Your task to perform on an android device: turn off notifications in google photos Image 0: 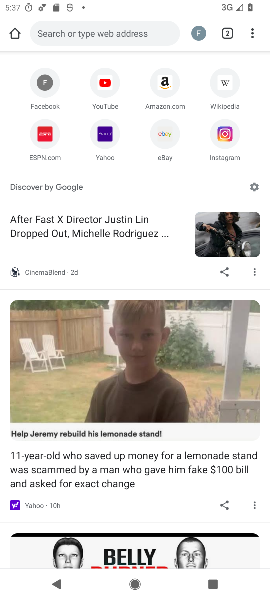
Step 0: press home button
Your task to perform on an android device: turn off notifications in google photos Image 1: 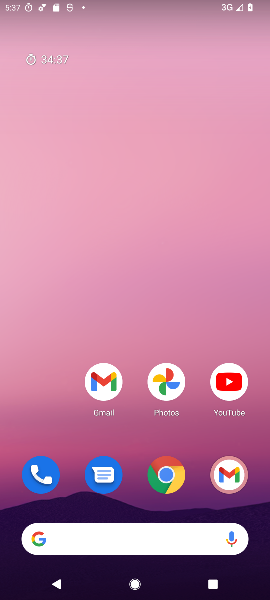
Step 1: drag from (53, 421) to (42, 208)
Your task to perform on an android device: turn off notifications in google photos Image 2: 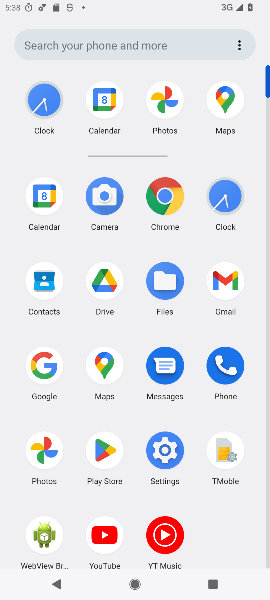
Step 2: click (43, 450)
Your task to perform on an android device: turn off notifications in google photos Image 3: 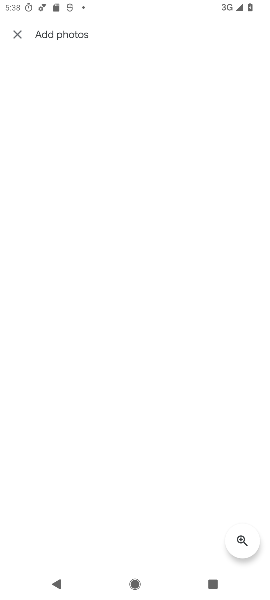
Step 3: press back button
Your task to perform on an android device: turn off notifications in google photos Image 4: 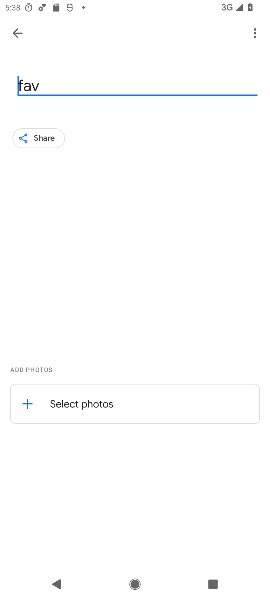
Step 4: press back button
Your task to perform on an android device: turn off notifications in google photos Image 5: 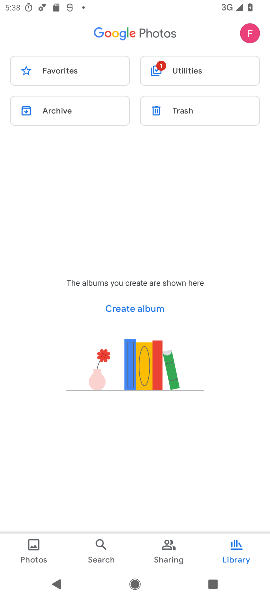
Step 5: click (251, 33)
Your task to perform on an android device: turn off notifications in google photos Image 6: 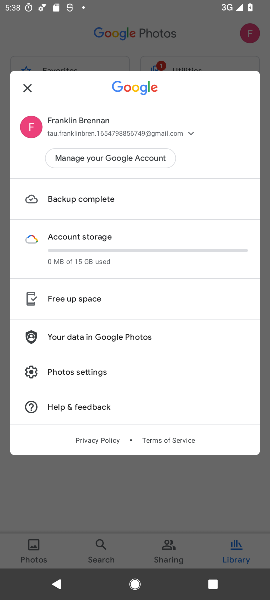
Step 6: click (125, 374)
Your task to perform on an android device: turn off notifications in google photos Image 7: 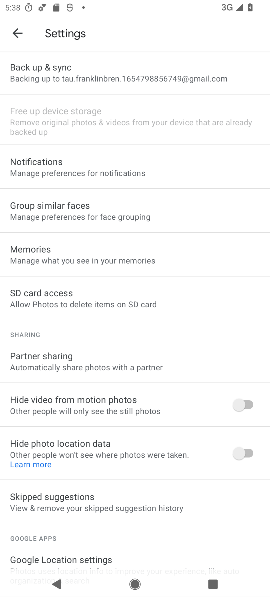
Step 7: click (149, 167)
Your task to perform on an android device: turn off notifications in google photos Image 8: 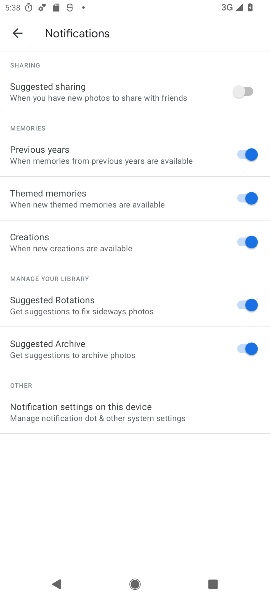
Step 8: click (121, 409)
Your task to perform on an android device: turn off notifications in google photos Image 9: 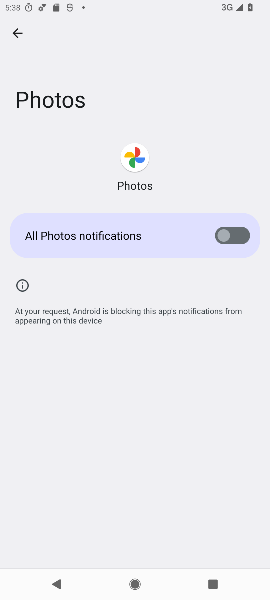
Step 9: task complete